Your task to perform on an android device: Open Maps and search for coffee Image 0: 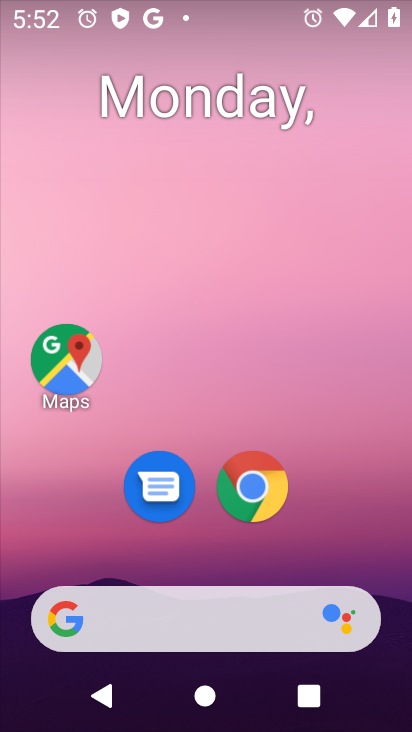
Step 0: click (66, 352)
Your task to perform on an android device: Open Maps and search for coffee Image 1: 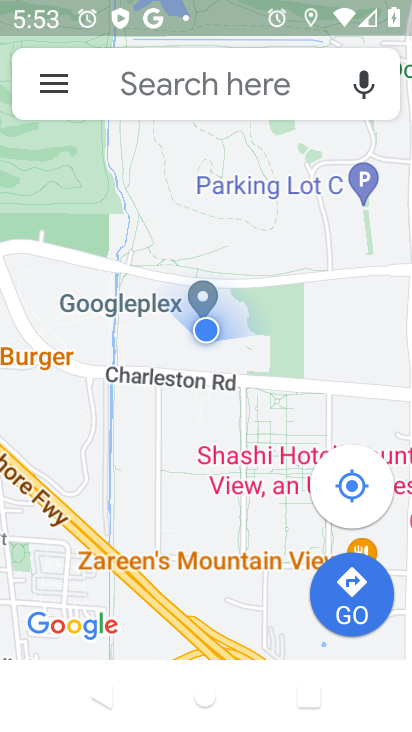
Step 1: click (118, 76)
Your task to perform on an android device: Open Maps and search for coffee Image 2: 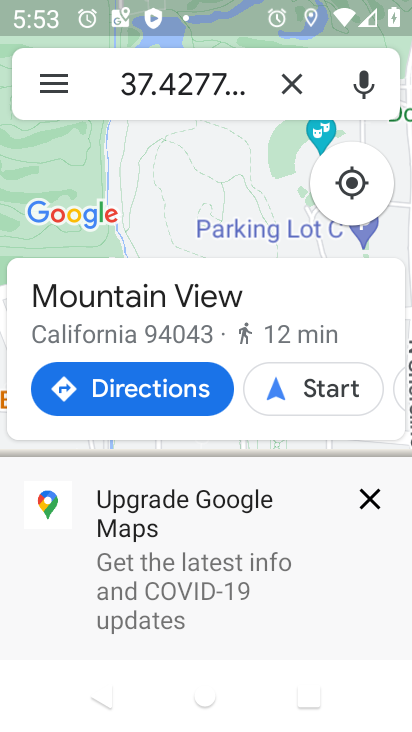
Step 2: click (294, 83)
Your task to perform on an android device: Open Maps and search for coffee Image 3: 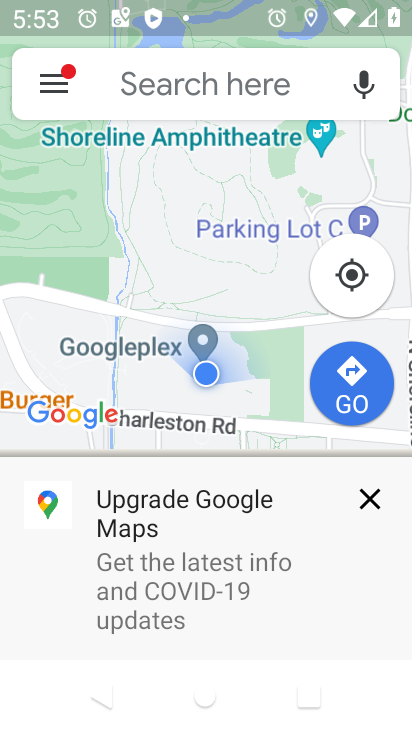
Step 3: click (289, 83)
Your task to perform on an android device: Open Maps and search for coffee Image 4: 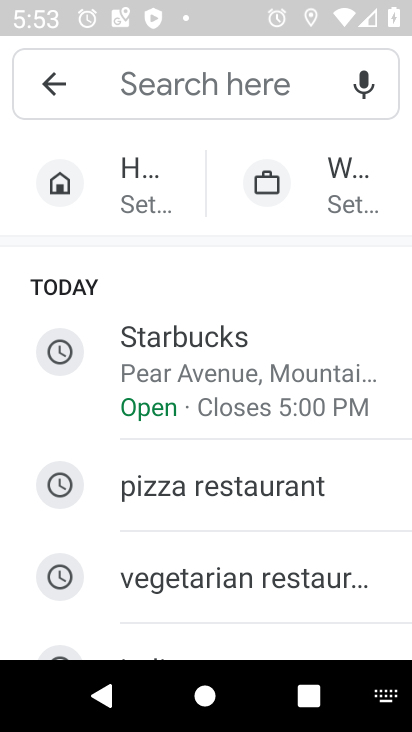
Step 4: type " coffee"
Your task to perform on an android device: Open Maps and search for coffee Image 5: 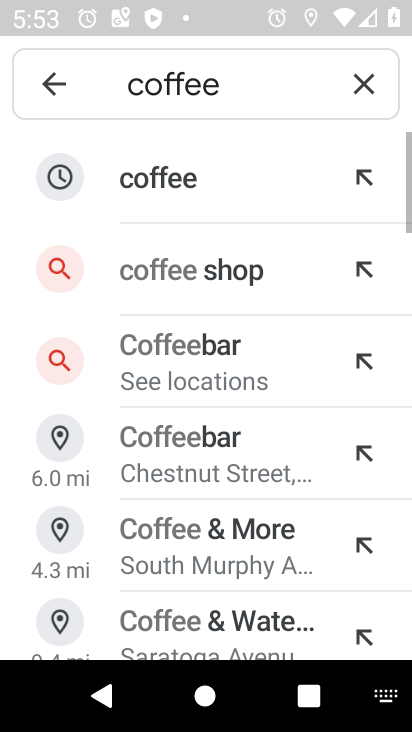
Step 5: click (137, 179)
Your task to perform on an android device: Open Maps and search for coffee Image 6: 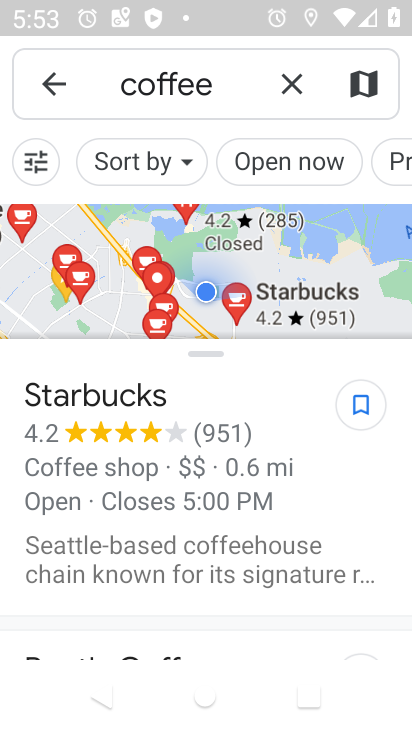
Step 6: task complete